Your task to perform on an android device: turn off airplane mode Image 0: 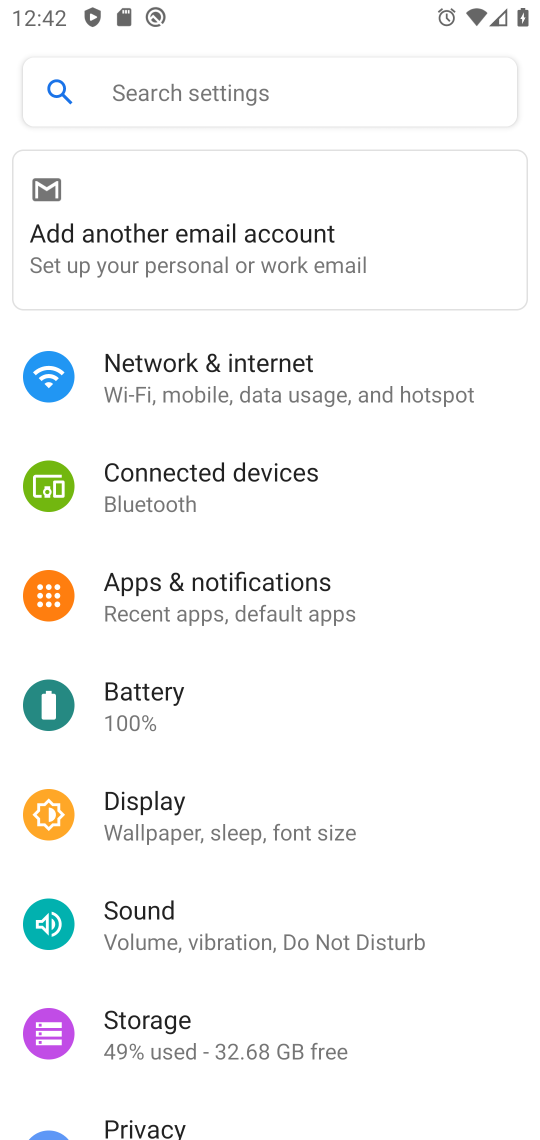
Step 0: click (250, 385)
Your task to perform on an android device: turn off airplane mode Image 1: 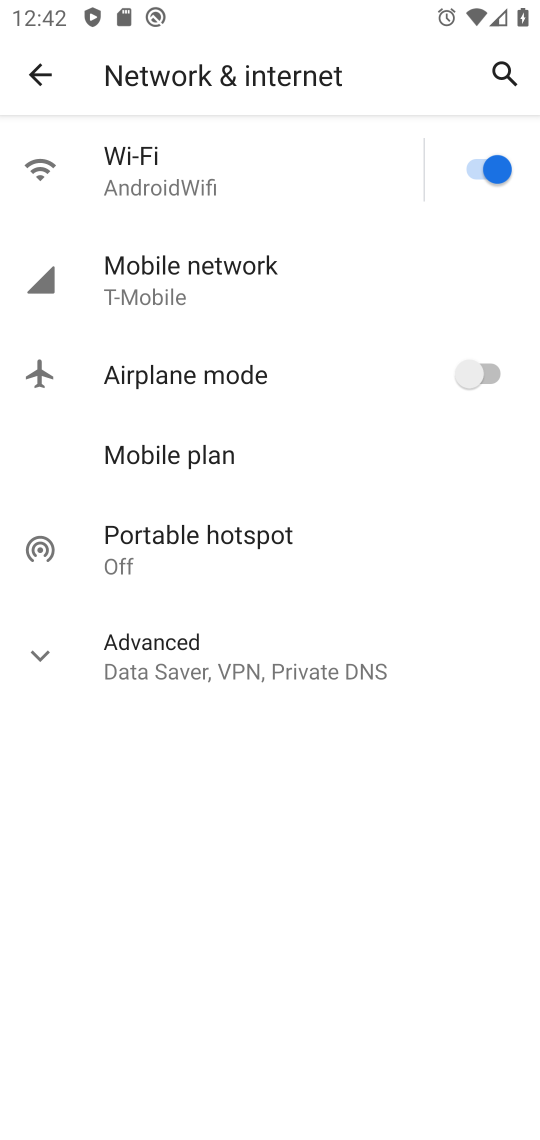
Step 1: task complete